Your task to perform on an android device: change your default location settings in chrome Image 0: 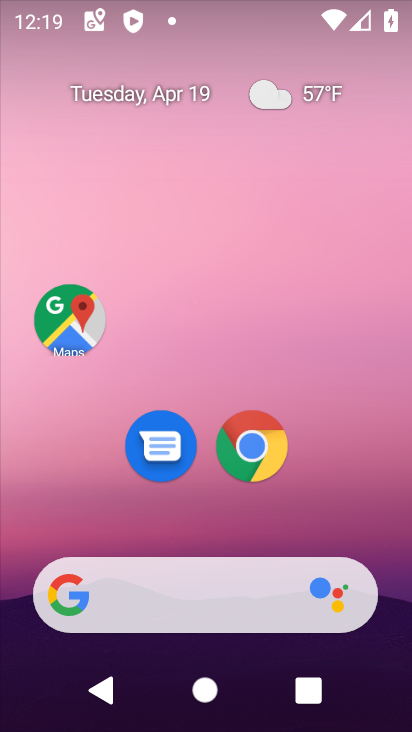
Step 0: click (251, 433)
Your task to perform on an android device: change your default location settings in chrome Image 1: 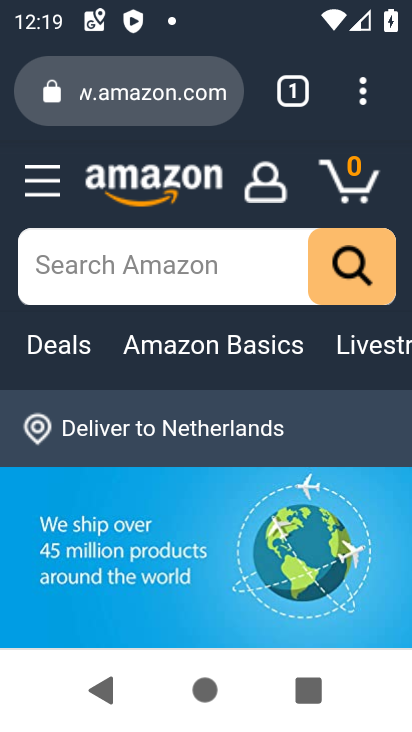
Step 1: click (362, 98)
Your task to perform on an android device: change your default location settings in chrome Image 2: 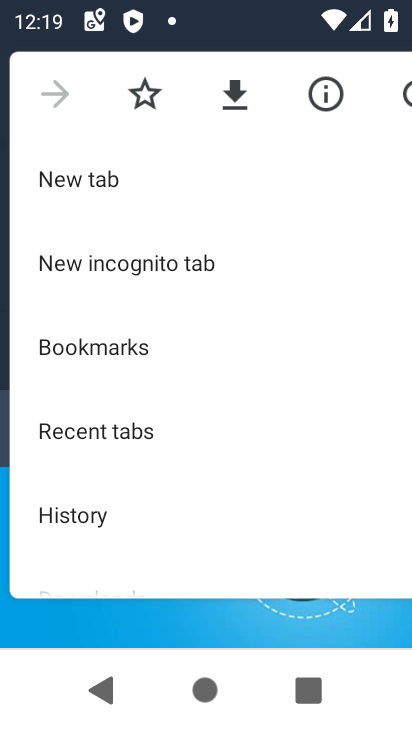
Step 2: drag from (210, 293) to (228, 163)
Your task to perform on an android device: change your default location settings in chrome Image 3: 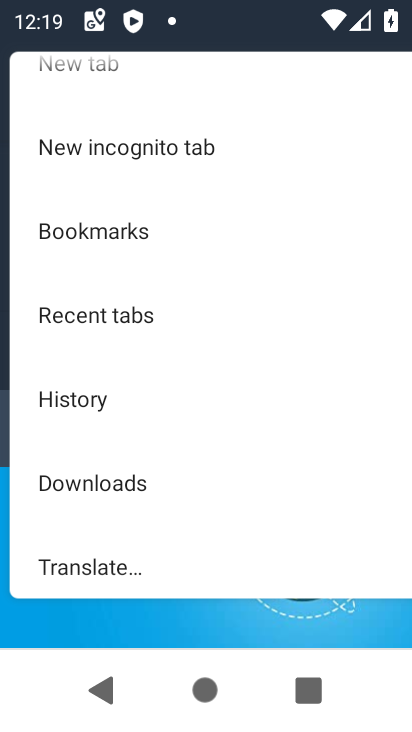
Step 3: drag from (188, 492) to (204, 172)
Your task to perform on an android device: change your default location settings in chrome Image 4: 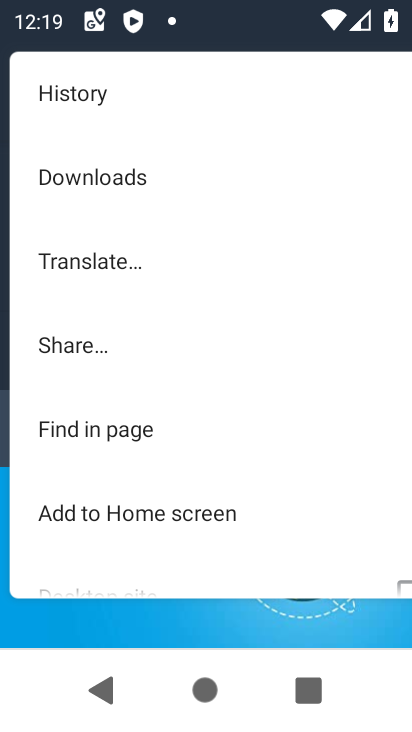
Step 4: drag from (194, 463) to (217, 108)
Your task to perform on an android device: change your default location settings in chrome Image 5: 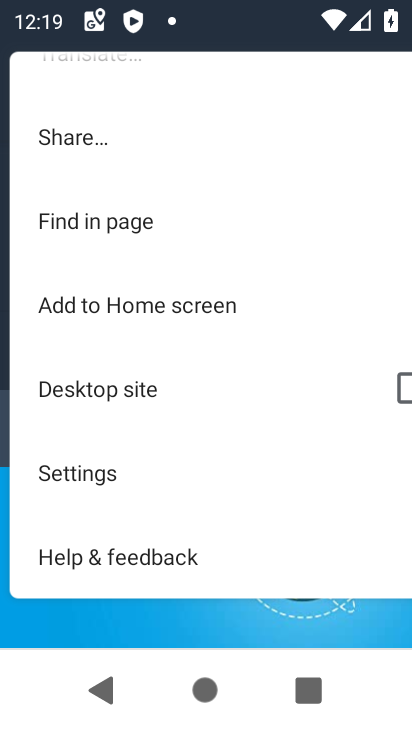
Step 5: click (120, 476)
Your task to perform on an android device: change your default location settings in chrome Image 6: 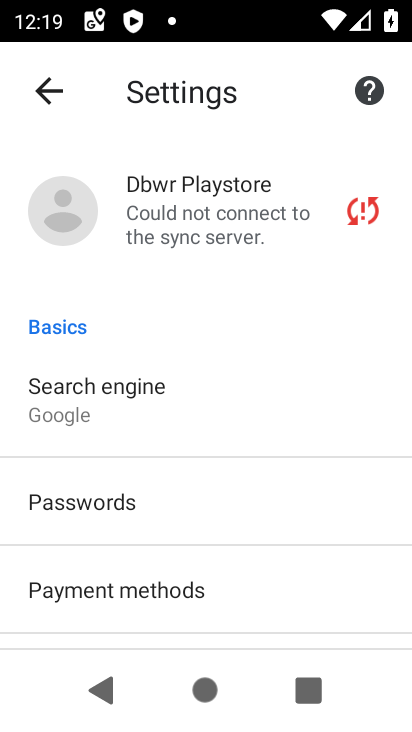
Step 6: drag from (287, 562) to (292, 241)
Your task to perform on an android device: change your default location settings in chrome Image 7: 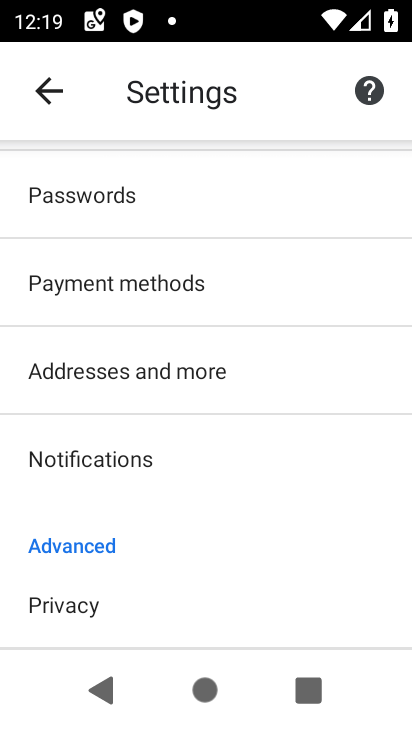
Step 7: drag from (261, 562) to (281, 214)
Your task to perform on an android device: change your default location settings in chrome Image 8: 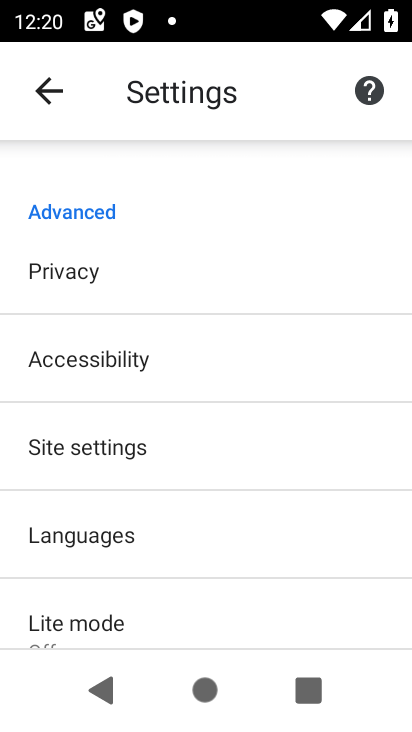
Step 8: drag from (263, 627) to (290, 313)
Your task to perform on an android device: change your default location settings in chrome Image 9: 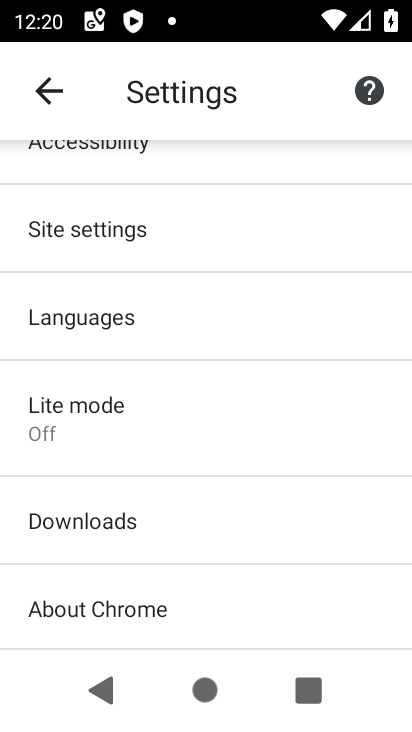
Step 9: click (245, 236)
Your task to perform on an android device: change your default location settings in chrome Image 10: 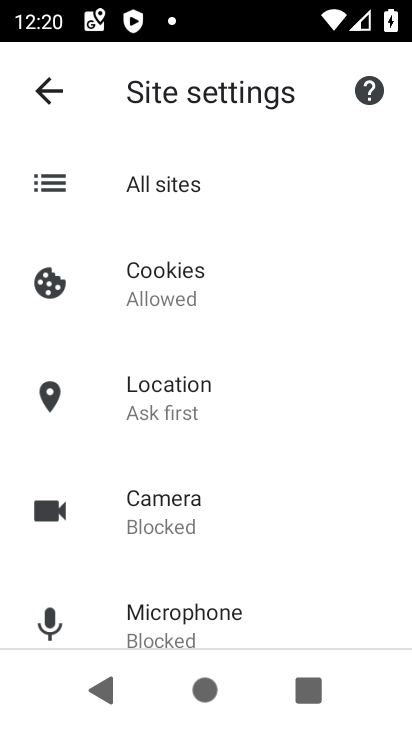
Step 10: click (206, 395)
Your task to perform on an android device: change your default location settings in chrome Image 11: 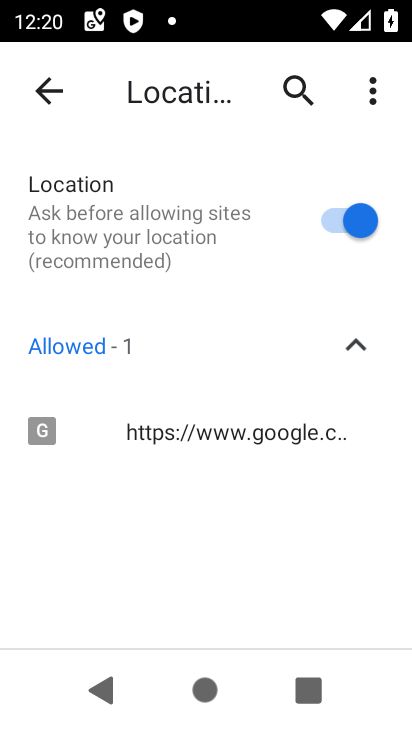
Step 11: click (331, 218)
Your task to perform on an android device: change your default location settings in chrome Image 12: 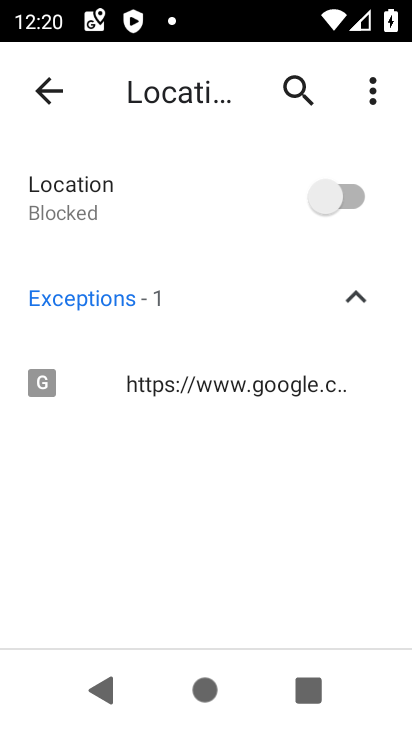
Step 12: task complete